Your task to perform on an android device: change the clock display to digital Image 0: 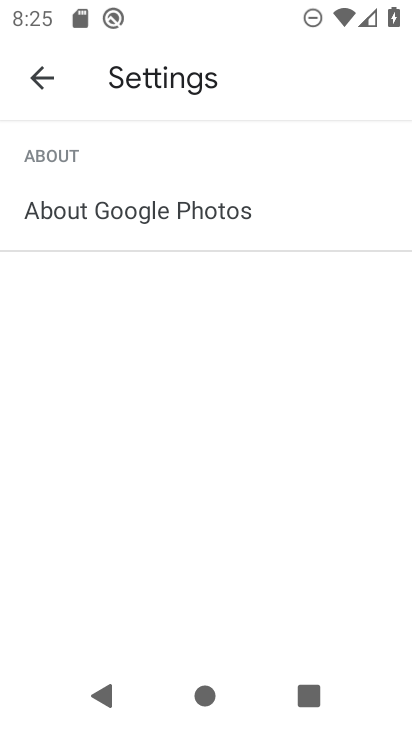
Step 0: press home button
Your task to perform on an android device: change the clock display to digital Image 1: 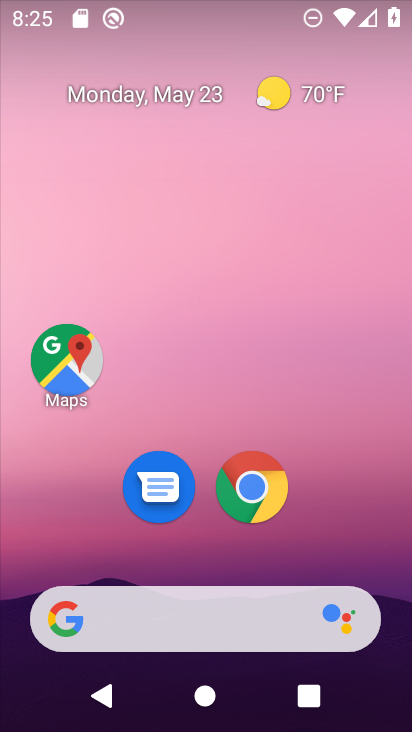
Step 1: drag from (203, 582) to (260, 194)
Your task to perform on an android device: change the clock display to digital Image 2: 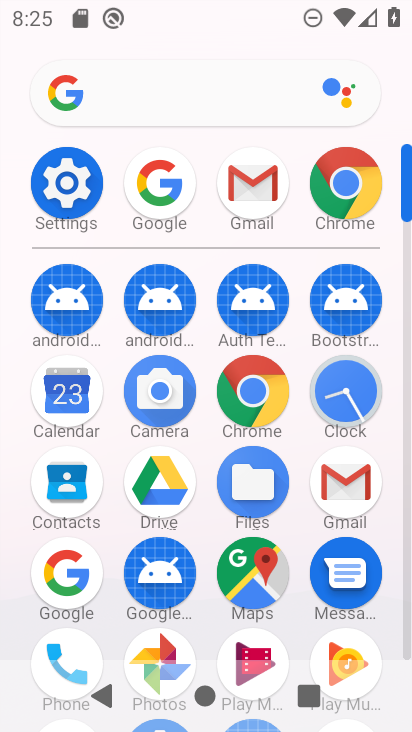
Step 2: click (359, 385)
Your task to perform on an android device: change the clock display to digital Image 3: 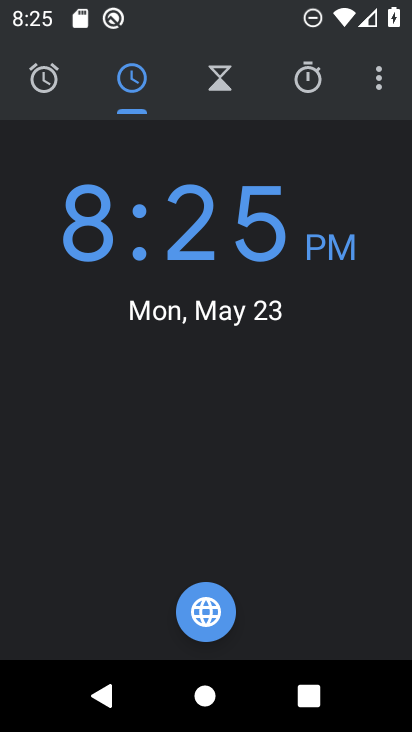
Step 3: click (39, 85)
Your task to perform on an android device: change the clock display to digital Image 4: 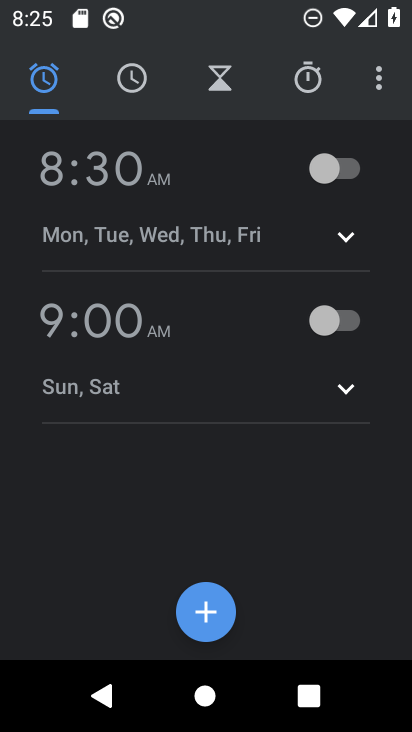
Step 4: click (381, 74)
Your task to perform on an android device: change the clock display to digital Image 5: 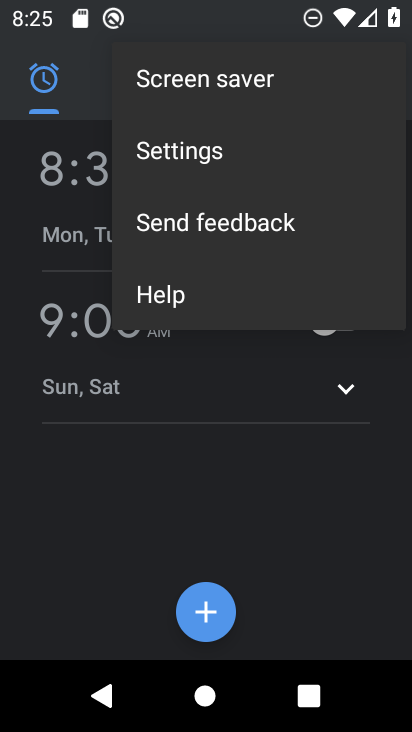
Step 5: click (188, 158)
Your task to perform on an android device: change the clock display to digital Image 6: 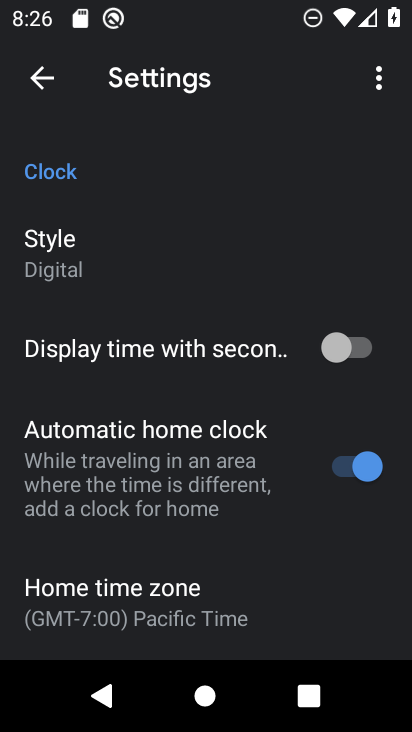
Step 6: task complete